Your task to perform on an android device: Go to privacy settings Image 0: 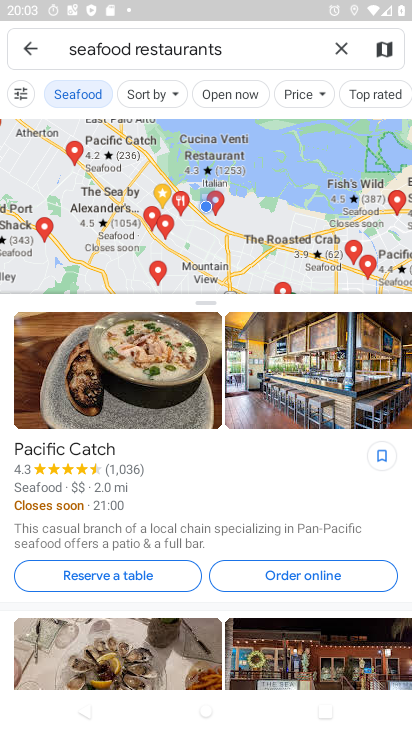
Step 0: press home button
Your task to perform on an android device: Go to privacy settings Image 1: 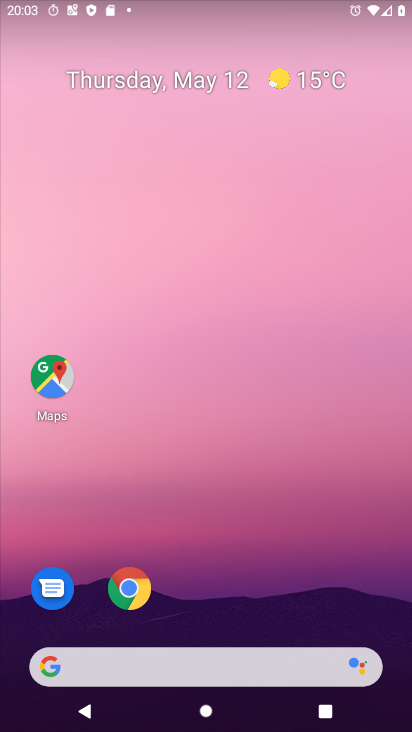
Step 1: drag from (209, 585) to (265, 234)
Your task to perform on an android device: Go to privacy settings Image 2: 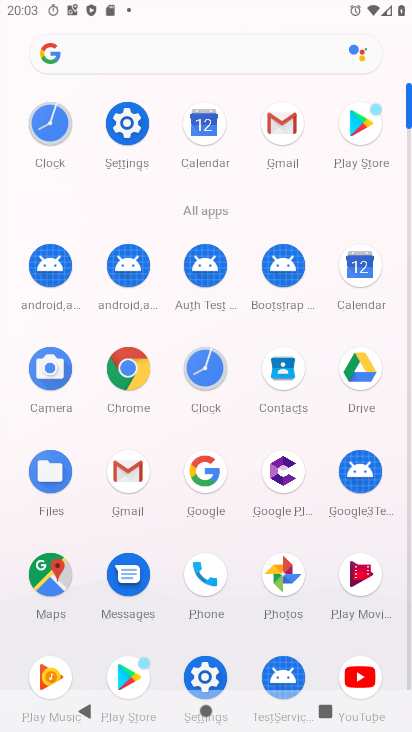
Step 2: click (207, 672)
Your task to perform on an android device: Go to privacy settings Image 3: 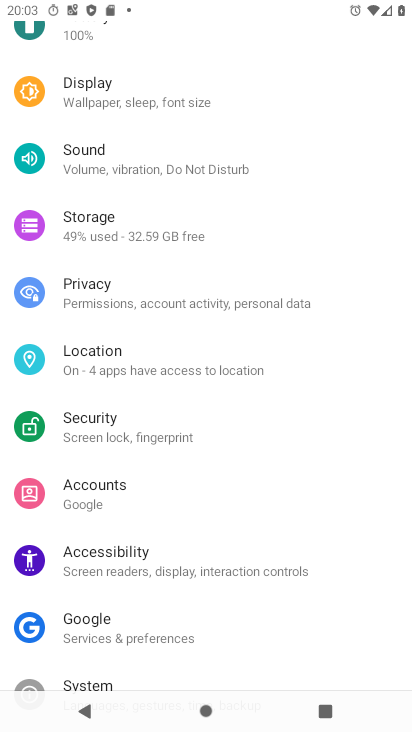
Step 3: click (151, 292)
Your task to perform on an android device: Go to privacy settings Image 4: 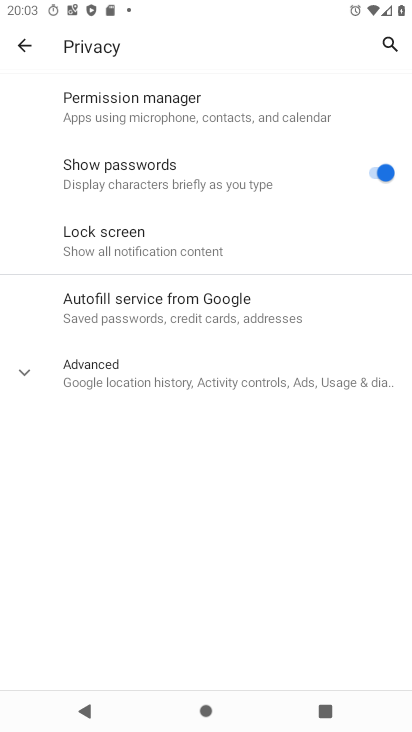
Step 4: task complete